Your task to perform on an android device: Open CNN.com Image 0: 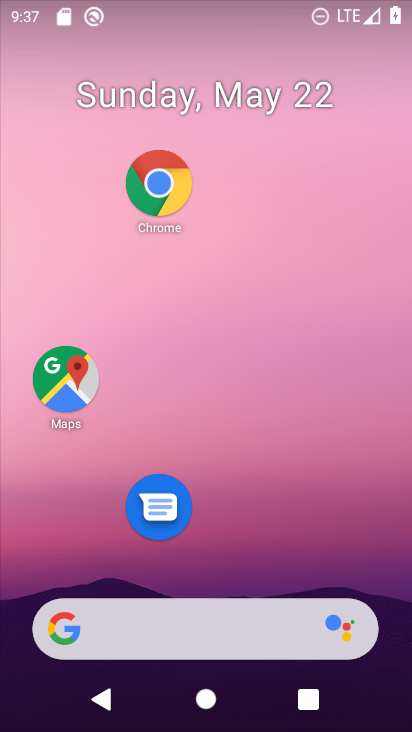
Step 0: click (238, 639)
Your task to perform on an android device: Open CNN.com Image 1: 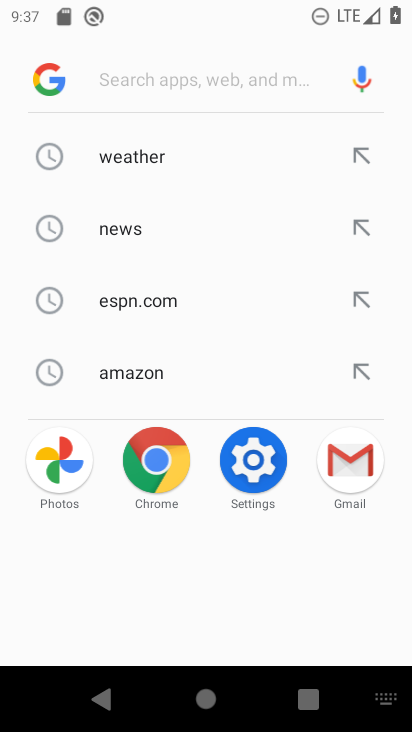
Step 1: type "cnn.com"
Your task to perform on an android device: Open CNN.com Image 2: 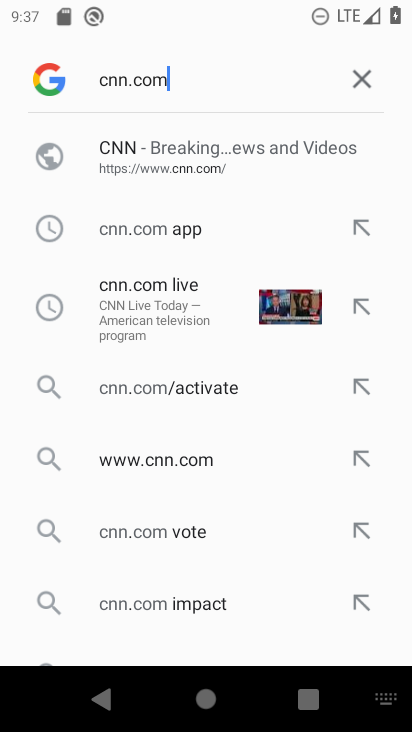
Step 2: click (290, 154)
Your task to perform on an android device: Open CNN.com Image 3: 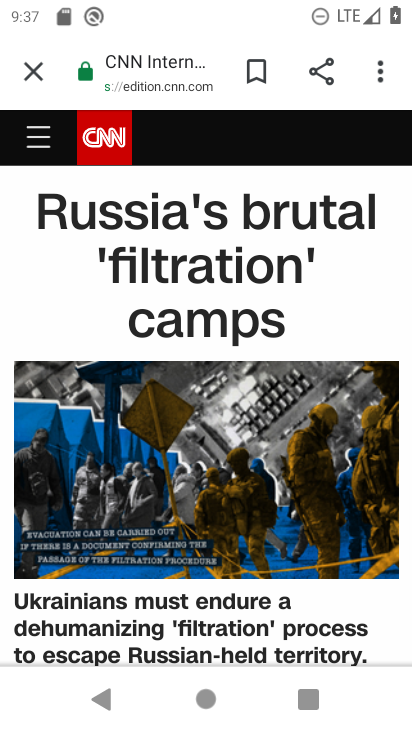
Step 3: task complete